Your task to perform on an android device: Open accessibility settings Image 0: 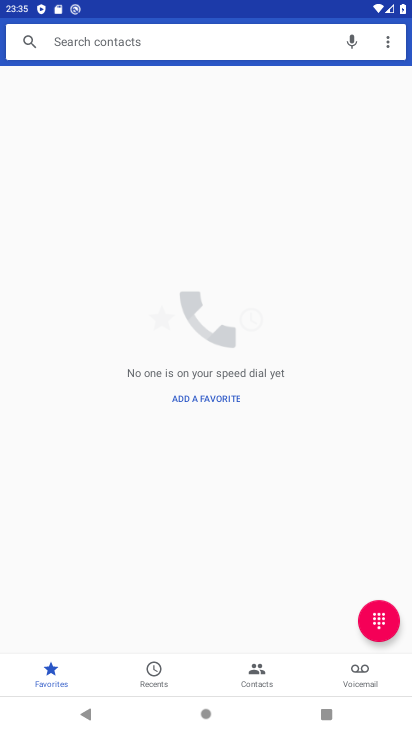
Step 0: press home button
Your task to perform on an android device: Open accessibility settings Image 1: 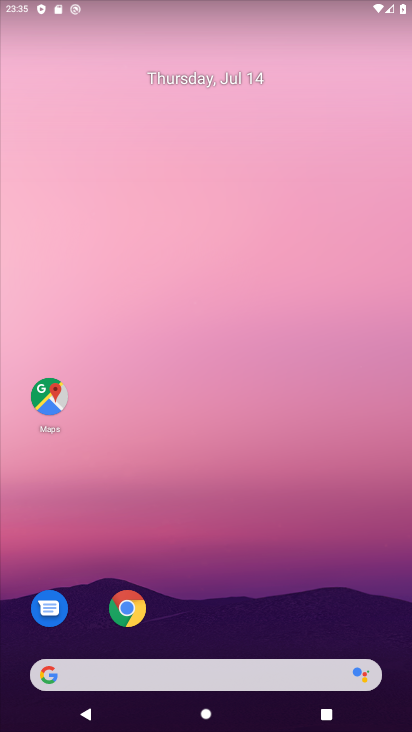
Step 1: drag from (61, 641) to (203, 729)
Your task to perform on an android device: Open accessibility settings Image 2: 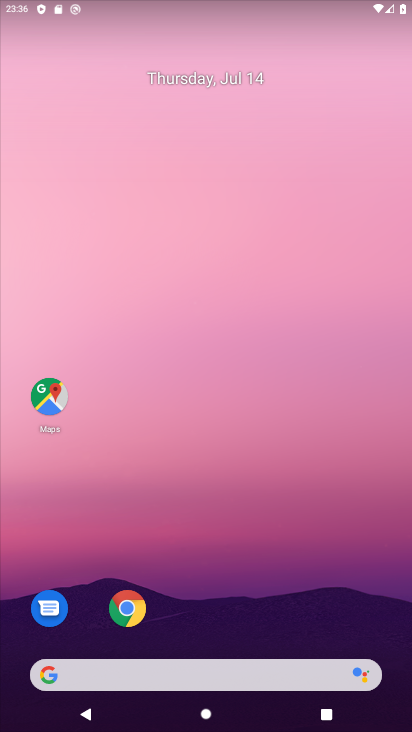
Step 2: drag from (22, 676) to (388, 102)
Your task to perform on an android device: Open accessibility settings Image 3: 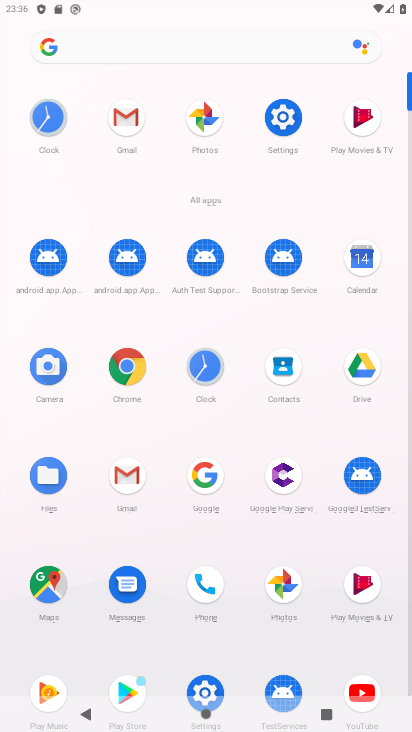
Step 3: click (216, 683)
Your task to perform on an android device: Open accessibility settings Image 4: 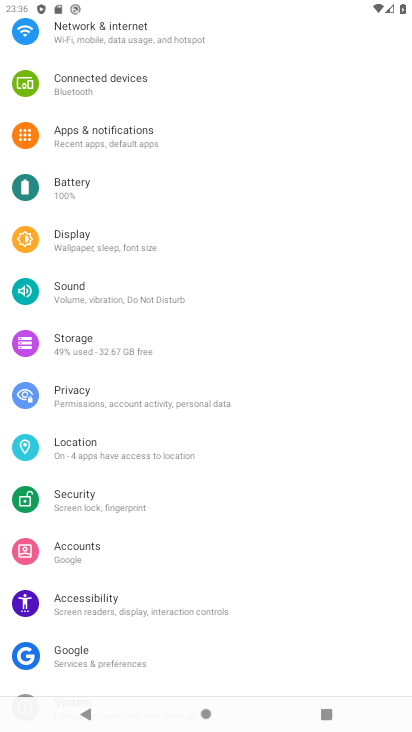
Step 4: click (107, 612)
Your task to perform on an android device: Open accessibility settings Image 5: 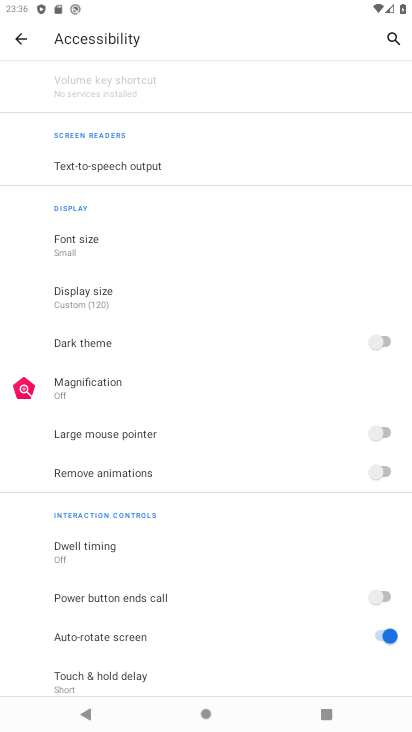
Step 5: task complete